Your task to perform on an android device: Open maps Image 0: 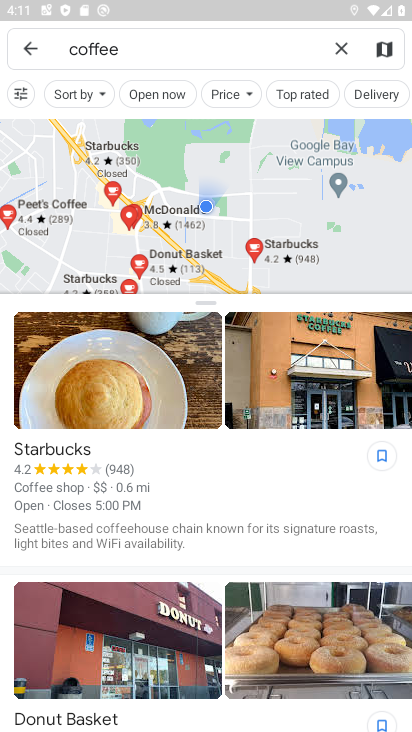
Step 0: click (36, 43)
Your task to perform on an android device: Open maps Image 1: 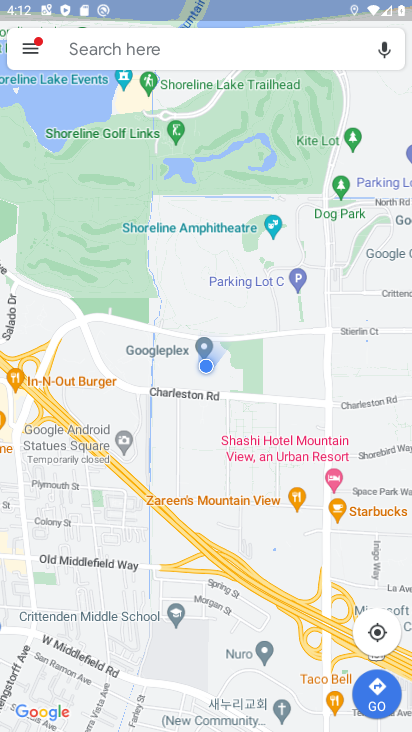
Step 1: task complete